Your task to perform on an android device: toggle show notifications on the lock screen Image 0: 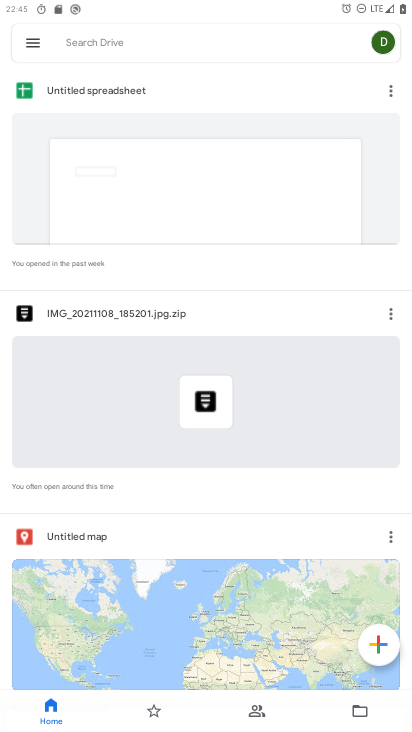
Step 0: press home button
Your task to perform on an android device: toggle show notifications on the lock screen Image 1: 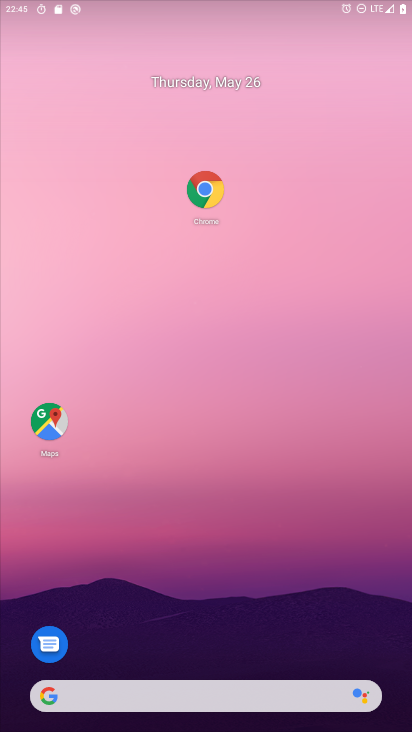
Step 1: drag from (184, 545) to (180, 112)
Your task to perform on an android device: toggle show notifications on the lock screen Image 2: 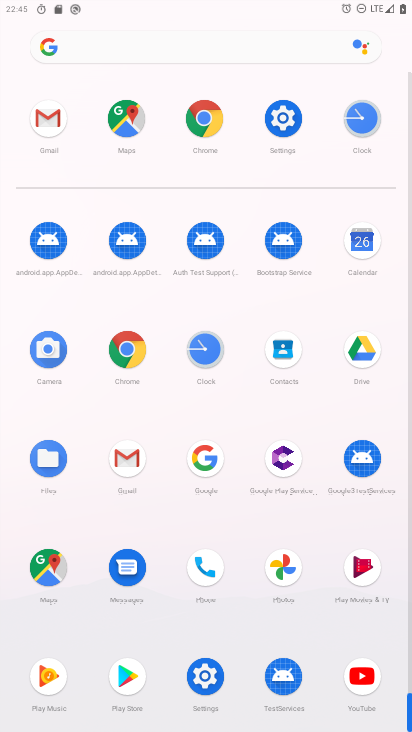
Step 2: click (196, 339)
Your task to perform on an android device: toggle show notifications on the lock screen Image 3: 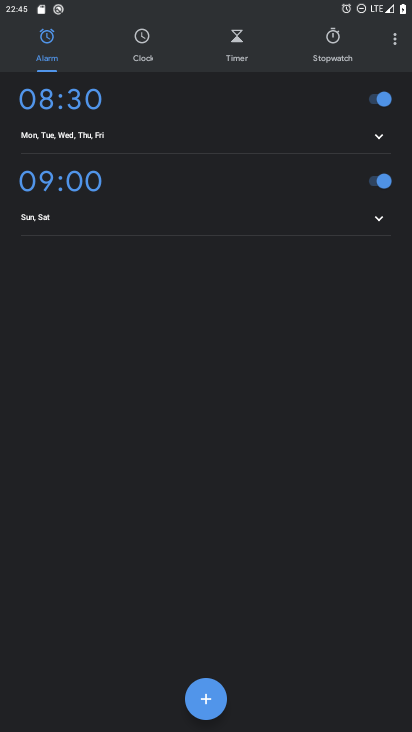
Step 3: drag from (402, 37) to (276, 78)
Your task to perform on an android device: toggle show notifications on the lock screen Image 4: 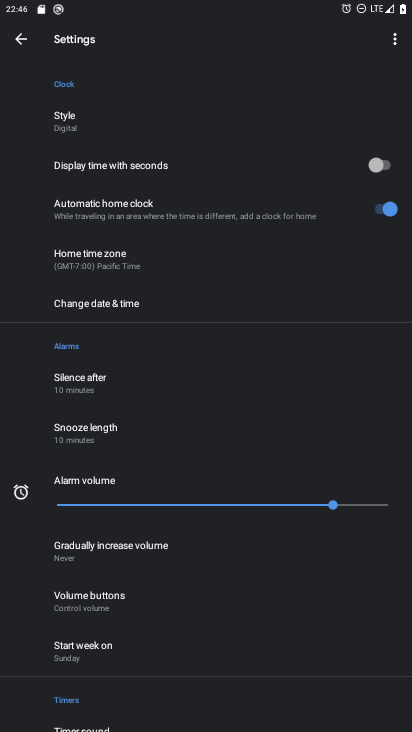
Step 4: press back button
Your task to perform on an android device: toggle show notifications on the lock screen Image 5: 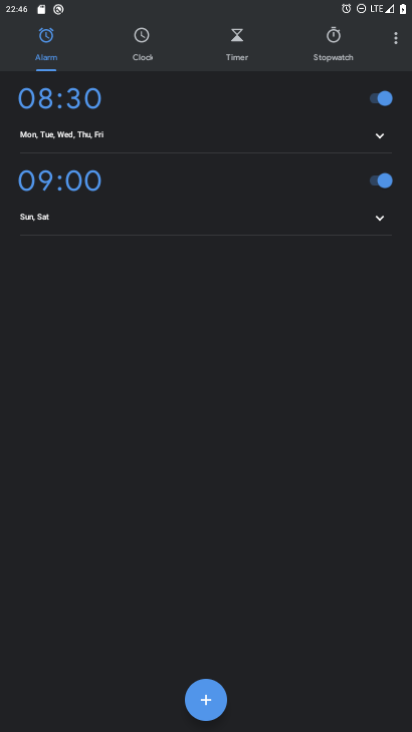
Step 5: press back button
Your task to perform on an android device: toggle show notifications on the lock screen Image 6: 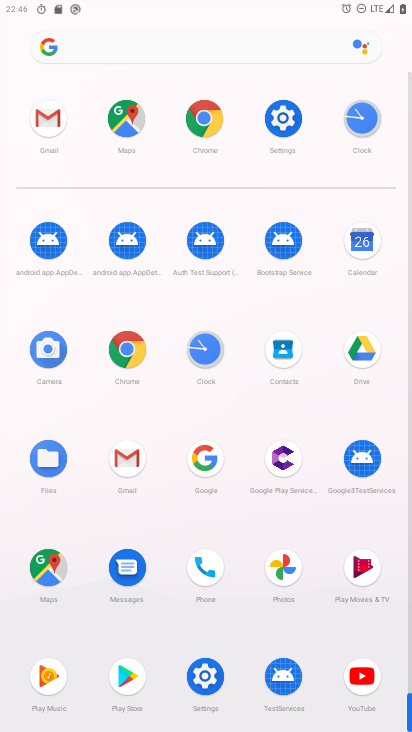
Step 6: click (292, 118)
Your task to perform on an android device: toggle show notifications on the lock screen Image 7: 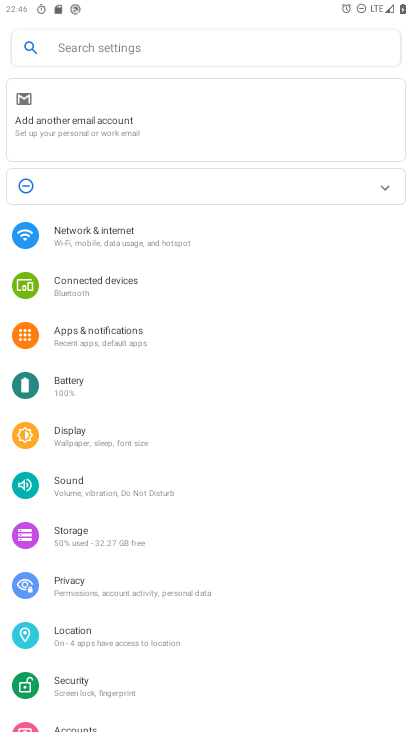
Step 7: click (132, 350)
Your task to perform on an android device: toggle show notifications on the lock screen Image 8: 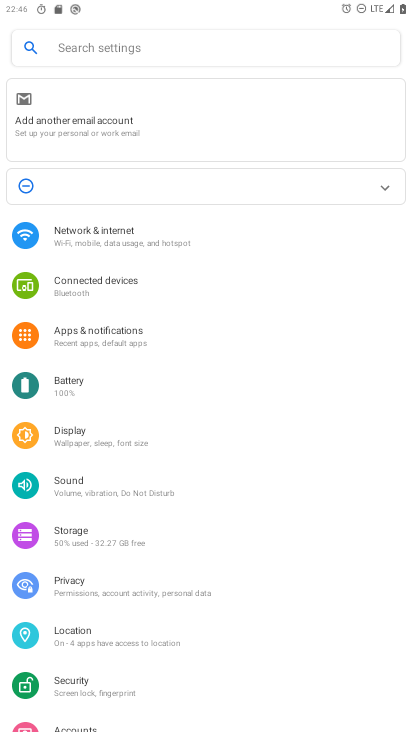
Step 8: click (132, 350)
Your task to perform on an android device: toggle show notifications on the lock screen Image 9: 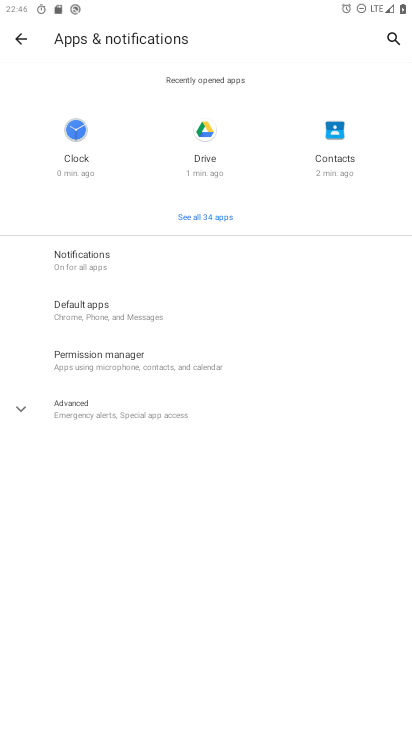
Step 9: click (246, 272)
Your task to perform on an android device: toggle show notifications on the lock screen Image 10: 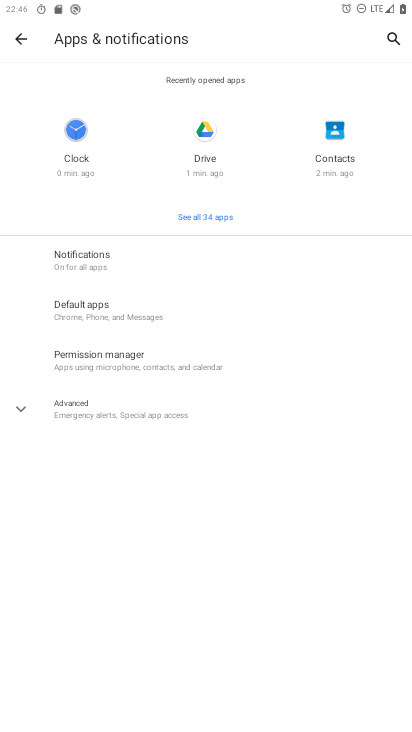
Step 10: click (246, 272)
Your task to perform on an android device: toggle show notifications on the lock screen Image 11: 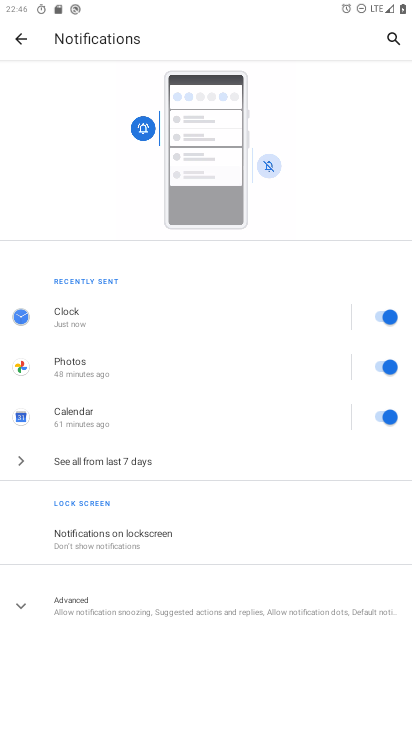
Step 11: click (139, 547)
Your task to perform on an android device: toggle show notifications on the lock screen Image 12: 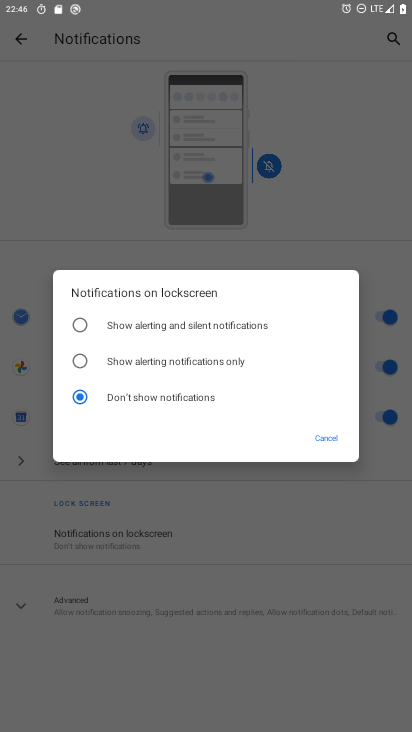
Step 12: click (132, 363)
Your task to perform on an android device: toggle show notifications on the lock screen Image 13: 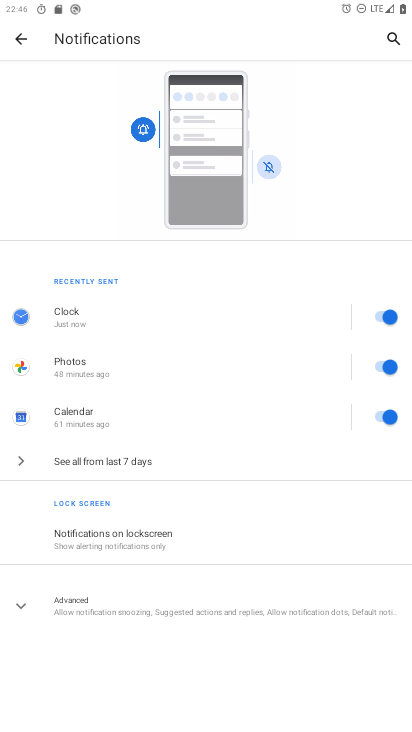
Step 13: task complete